Your task to perform on an android device: Open Google Maps and go to "Timeline" Image 0: 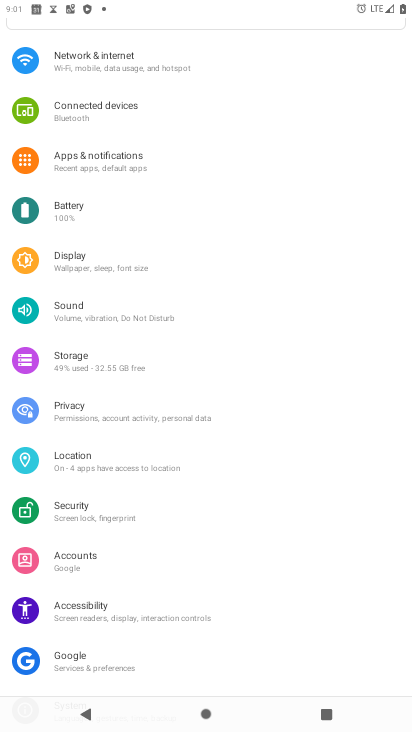
Step 0: press home button
Your task to perform on an android device: Open Google Maps and go to "Timeline" Image 1: 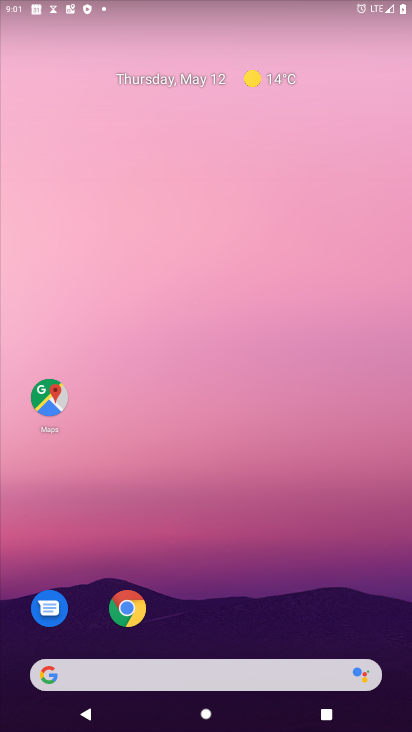
Step 1: click (59, 399)
Your task to perform on an android device: Open Google Maps and go to "Timeline" Image 2: 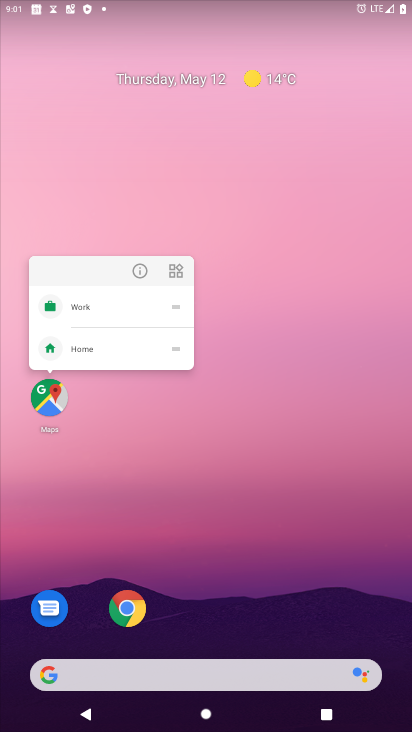
Step 2: click (46, 391)
Your task to perform on an android device: Open Google Maps and go to "Timeline" Image 3: 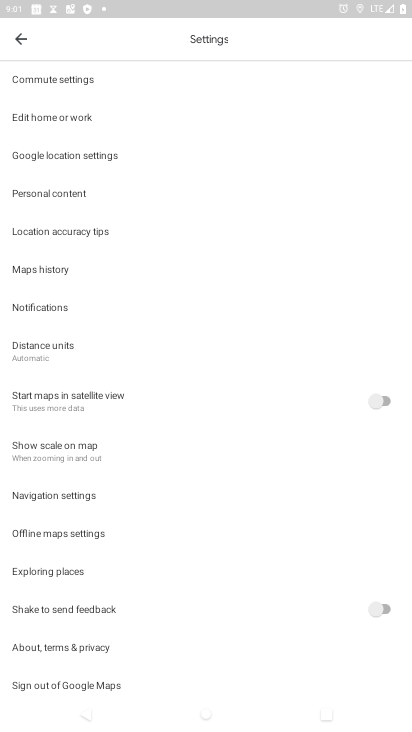
Step 3: click (16, 41)
Your task to perform on an android device: Open Google Maps and go to "Timeline" Image 4: 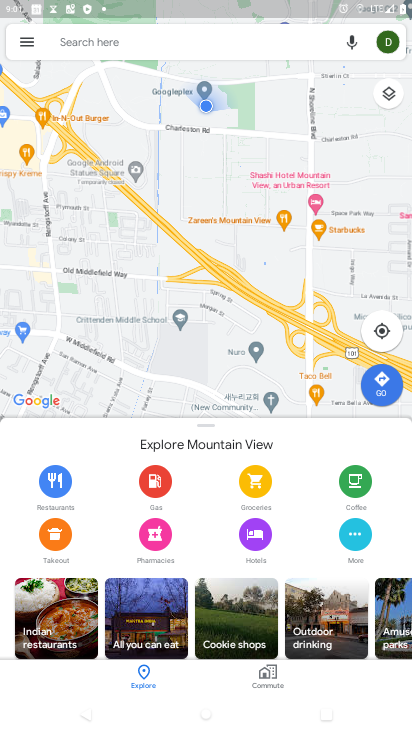
Step 4: click (26, 43)
Your task to perform on an android device: Open Google Maps and go to "Timeline" Image 5: 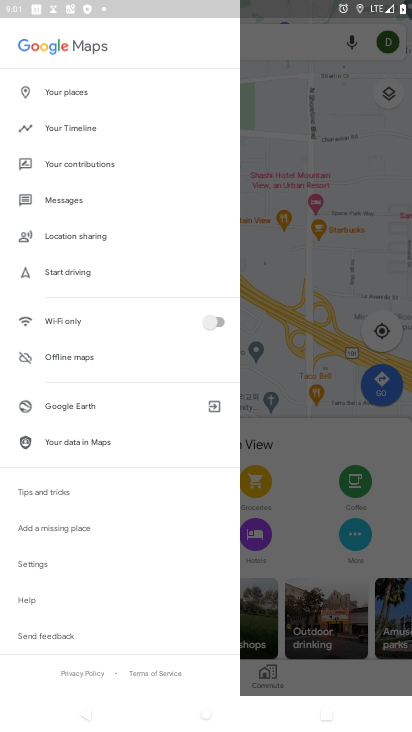
Step 5: click (81, 131)
Your task to perform on an android device: Open Google Maps and go to "Timeline" Image 6: 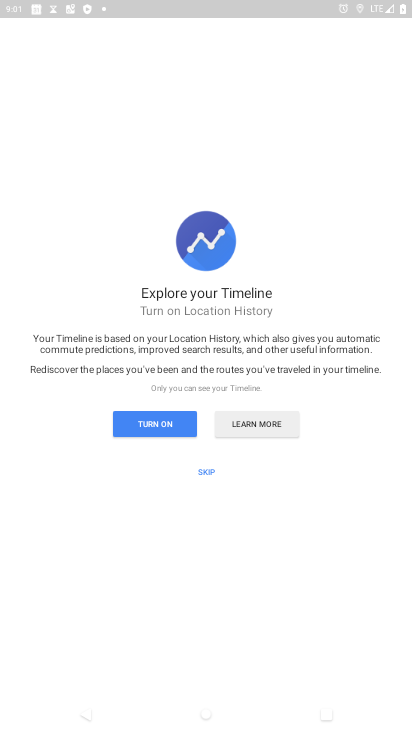
Step 6: click (254, 423)
Your task to perform on an android device: Open Google Maps and go to "Timeline" Image 7: 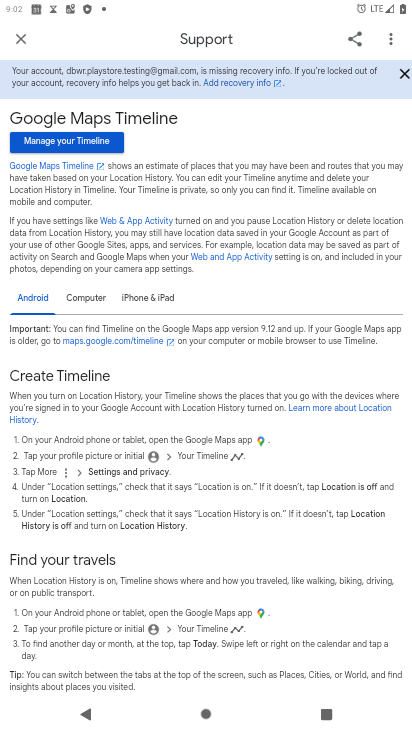
Step 7: drag from (203, 674) to (184, 369)
Your task to perform on an android device: Open Google Maps and go to "Timeline" Image 8: 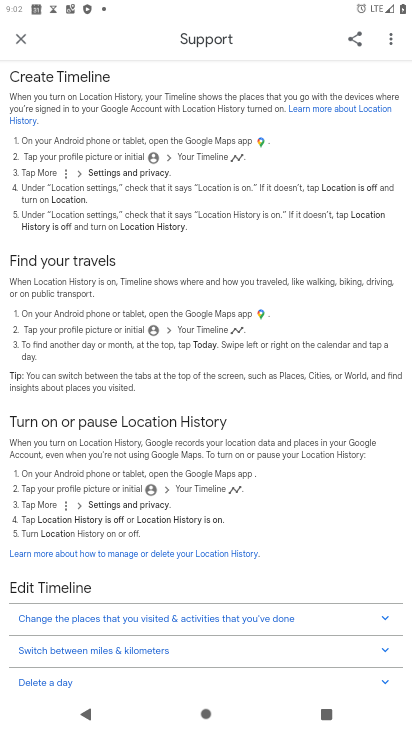
Step 8: click (22, 33)
Your task to perform on an android device: Open Google Maps and go to "Timeline" Image 9: 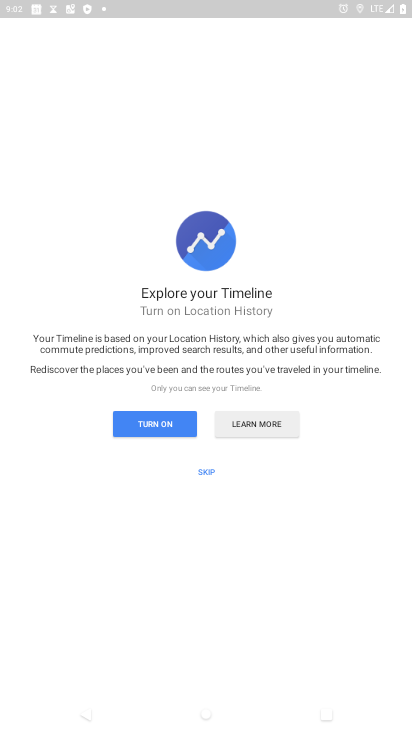
Step 9: click (150, 425)
Your task to perform on an android device: Open Google Maps and go to "Timeline" Image 10: 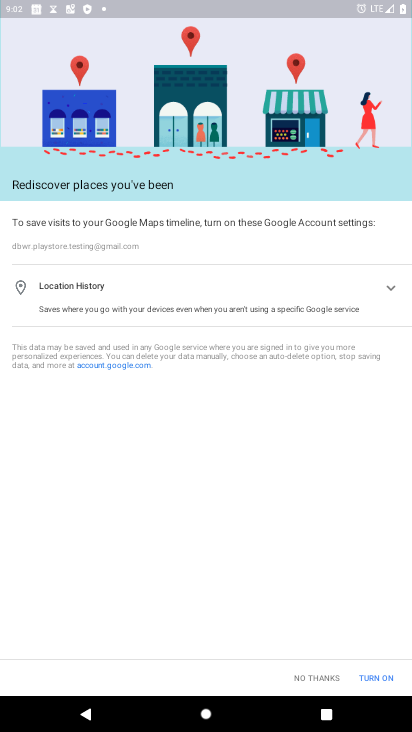
Step 10: task complete